Your task to perform on an android device: check battery use Image 0: 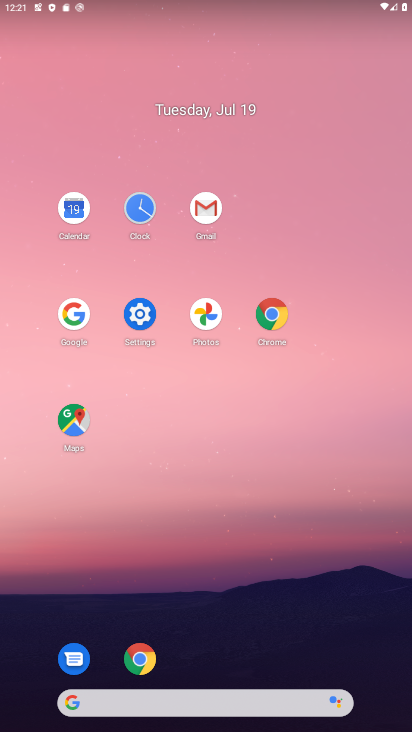
Step 0: click (136, 319)
Your task to perform on an android device: check battery use Image 1: 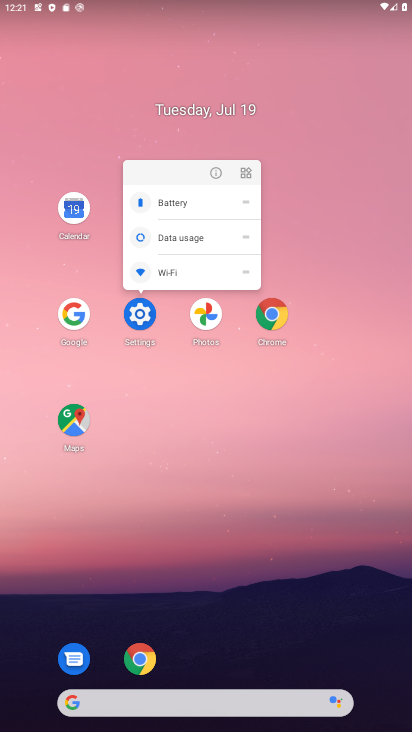
Step 1: click (137, 320)
Your task to perform on an android device: check battery use Image 2: 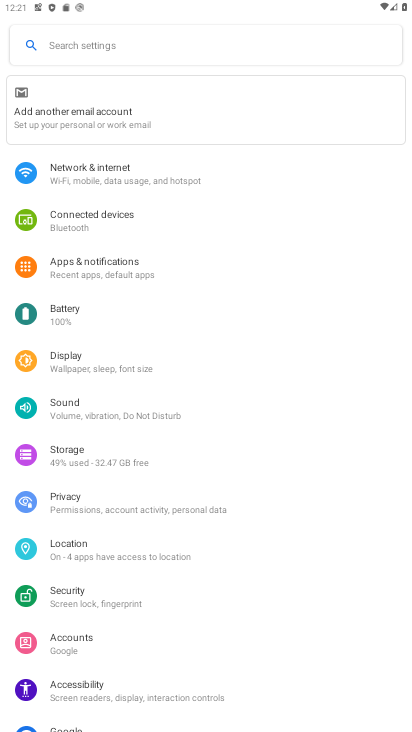
Step 2: click (131, 321)
Your task to perform on an android device: check battery use Image 3: 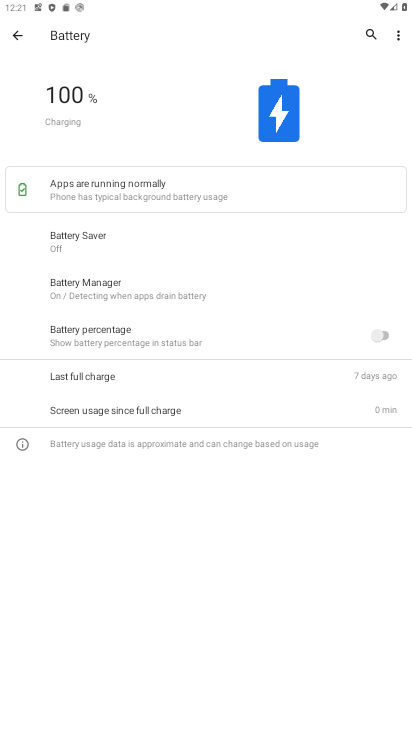
Step 3: click (401, 37)
Your task to perform on an android device: check battery use Image 4: 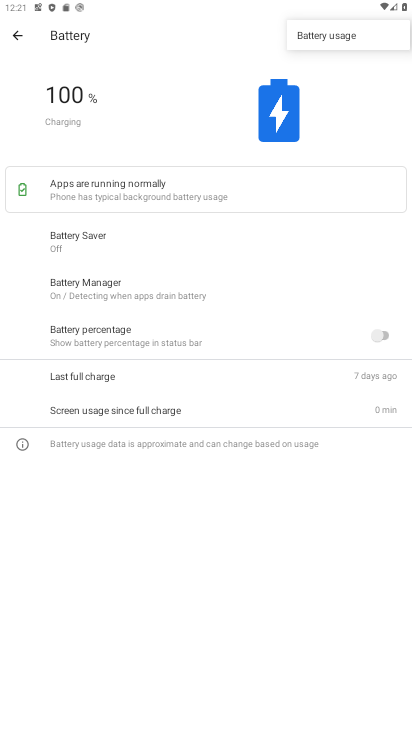
Step 4: click (317, 36)
Your task to perform on an android device: check battery use Image 5: 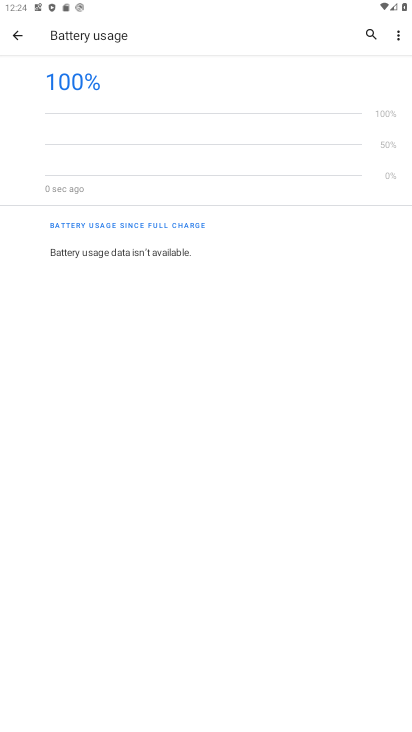
Step 5: task complete